Your task to perform on an android device: clear all cookies in the chrome app Image 0: 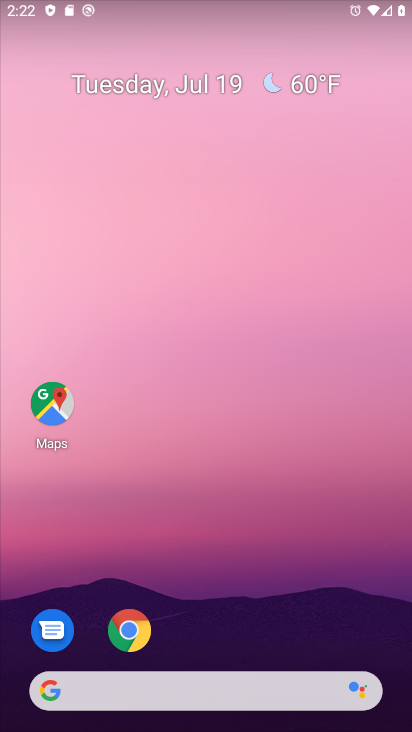
Step 0: drag from (298, 556) to (278, 202)
Your task to perform on an android device: clear all cookies in the chrome app Image 1: 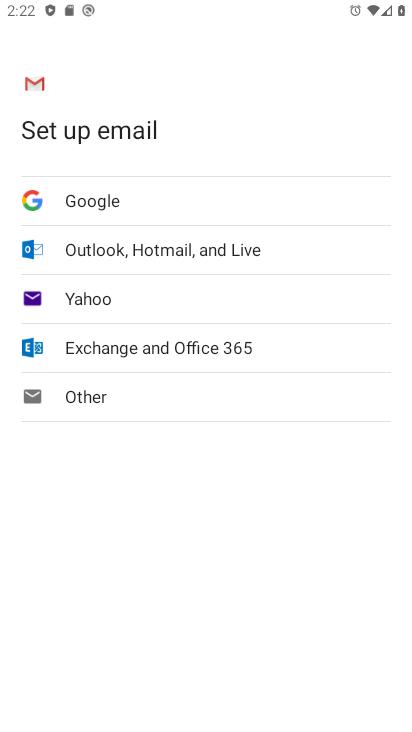
Step 1: press home button
Your task to perform on an android device: clear all cookies in the chrome app Image 2: 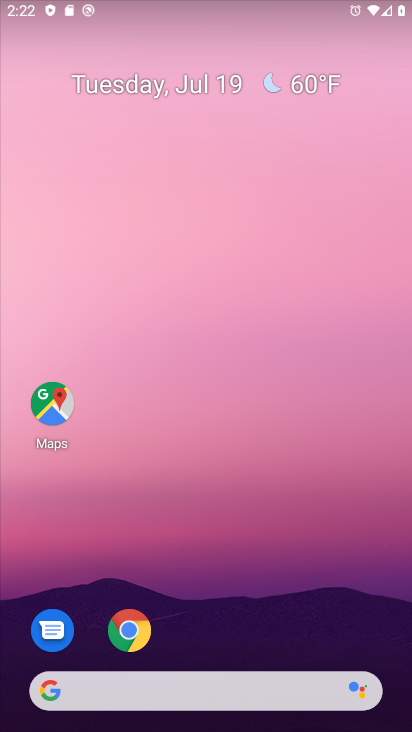
Step 2: drag from (271, 625) to (217, 143)
Your task to perform on an android device: clear all cookies in the chrome app Image 3: 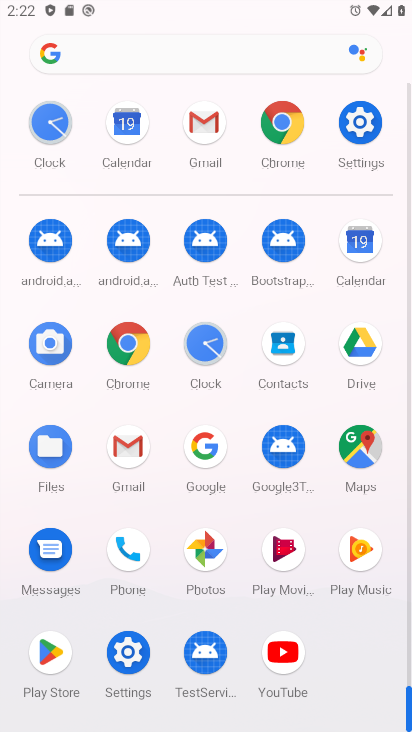
Step 3: click (278, 126)
Your task to perform on an android device: clear all cookies in the chrome app Image 4: 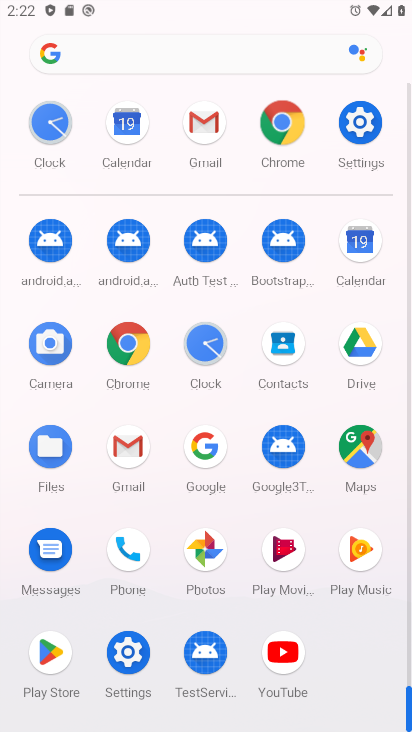
Step 4: click (281, 123)
Your task to perform on an android device: clear all cookies in the chrome app Image 5: 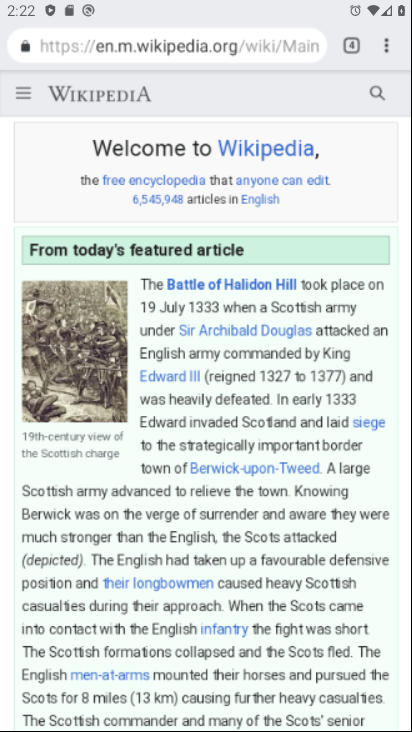
Step 5: drag from (375, 39) to (199, 432)
Your task to perform on an android device: clear all cookies in the chrome app Image 6: 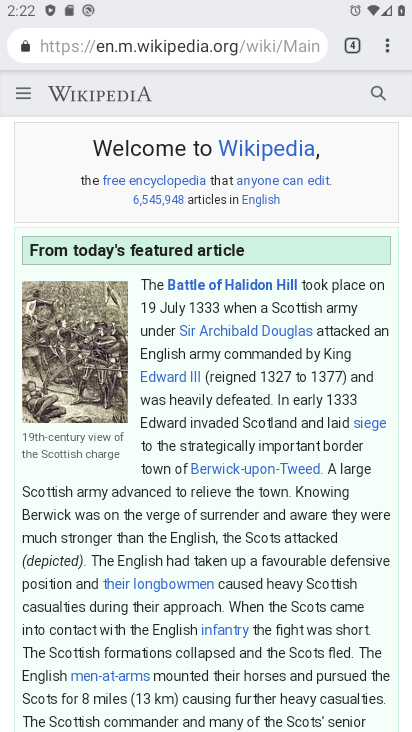
Step 6: drag from (379, 46) to (366, 133)
Your task to perform on an android device: clear all cookies in the chrome app Image 7: 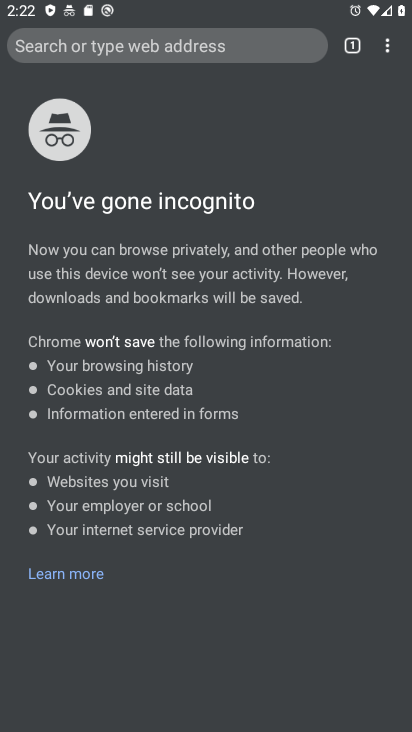
Step 7: drag from (382, 50) to (234, 338)
Your task to perform on an android device: clear all cookies in the chrome app Image 8: 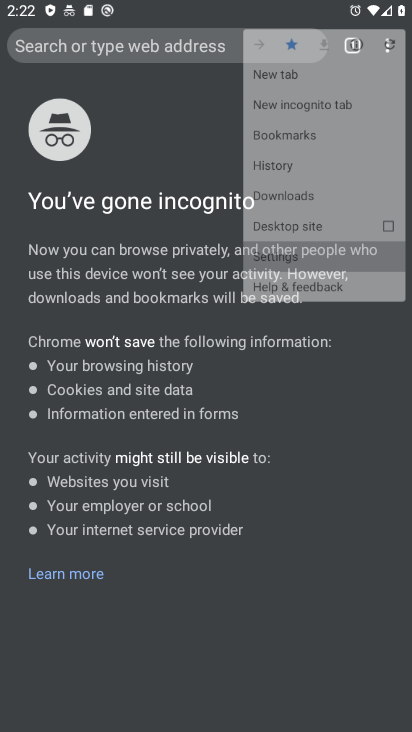
Step 8: click (229, 344)
Your task to perform on an android device: clear all cookies in the chrome app Image 9: 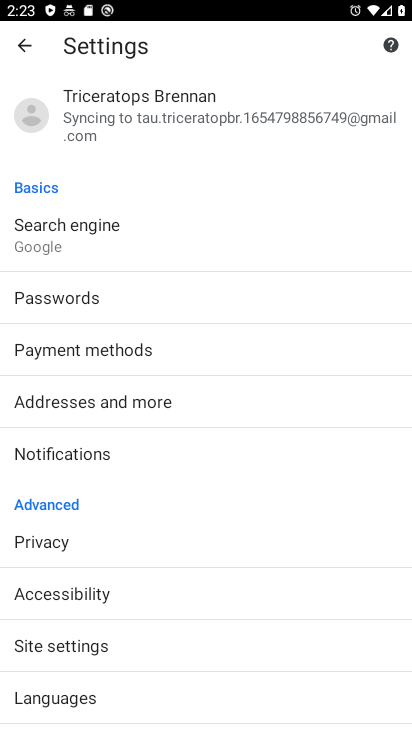
Step 9: click (57, 640)
Your task to perform on an android device: clear all cookies in the chrome app Image 10: 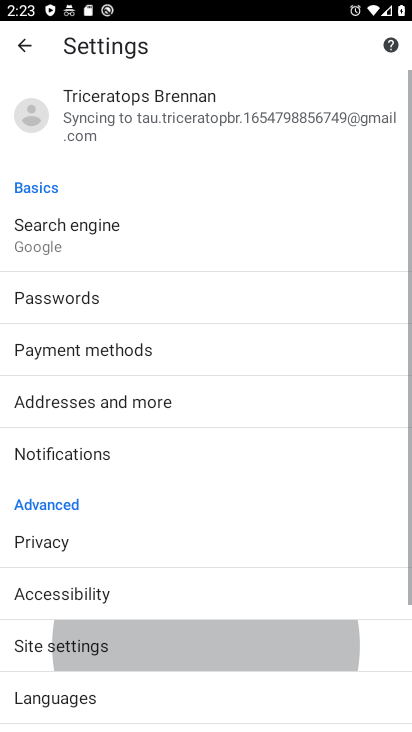
Step 10: click (57, 640)
Your task to perform on an android device: clear all cookies in the chrome app Image 11: 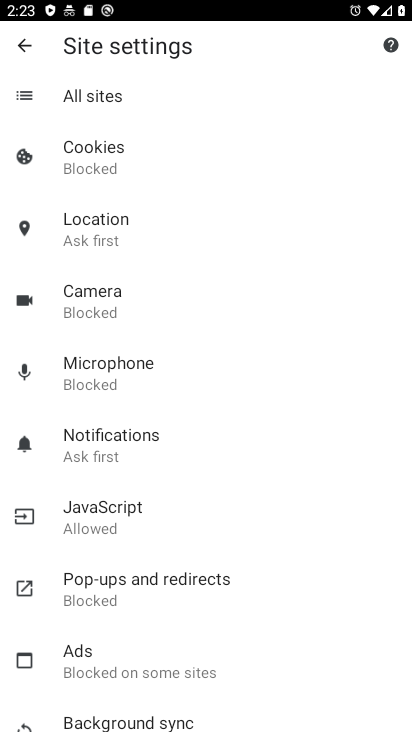
Step 11: click (85, 163)
Your task to perform on an android device: clear all cookies in the chrome app Image 12: 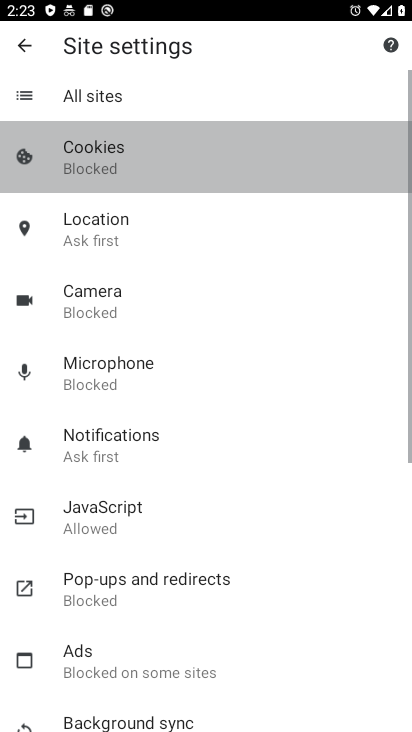
Step 12: click (85, 163)
Your task to perform on an android device: clear all cookies in the chrome app Image 13: 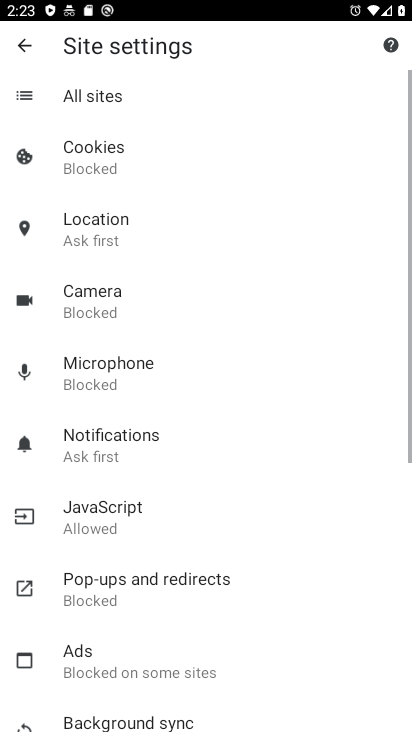
Step 13: click (85, 163)
Your task to perform on an android device: clear all cookies in the chrome app Image 14: 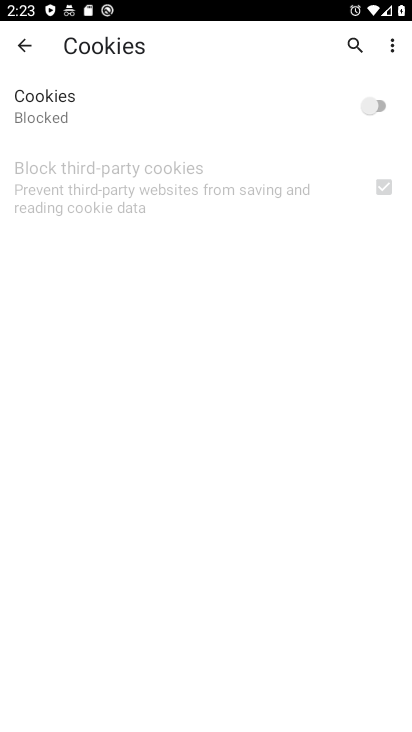
Step 14: click (363, 107)
Your task to perform on an android device: clear all cookies in the chrome app Image 15: 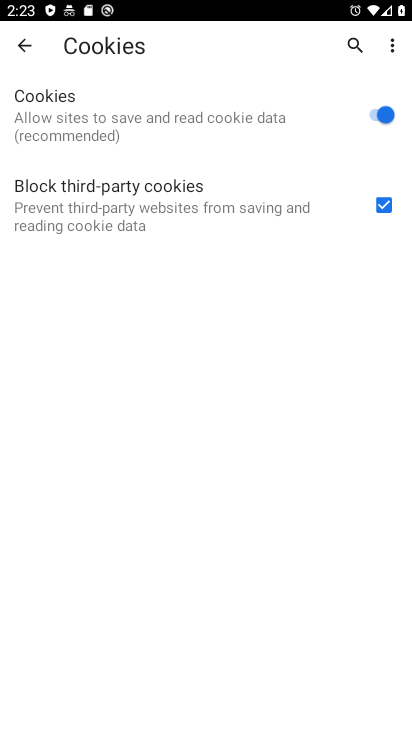
Step 15: click (380, 111)
Your task to perform on an android device: clear all cookies in the chrome app Image 16: 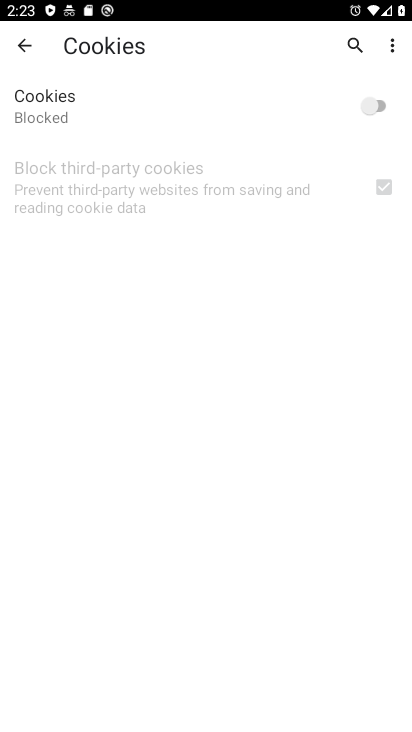
Step 16: task complete